Your task to perform on an android device: all mails in gmail Image 0: 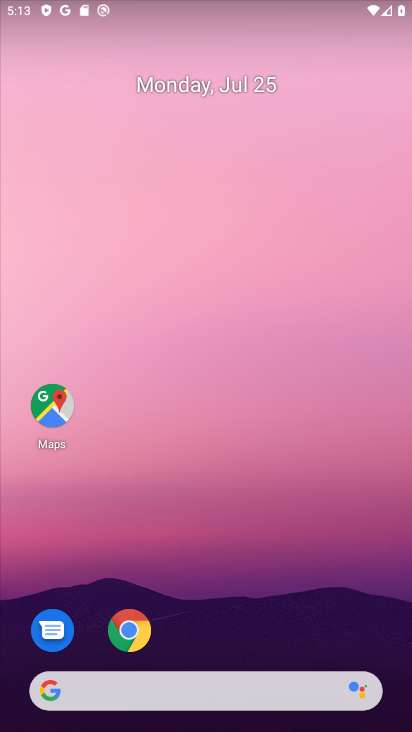
Step 0: drag from (222, 649) to (252, 2)
Your task to perform on an android device: all mails in gmail Image 1: 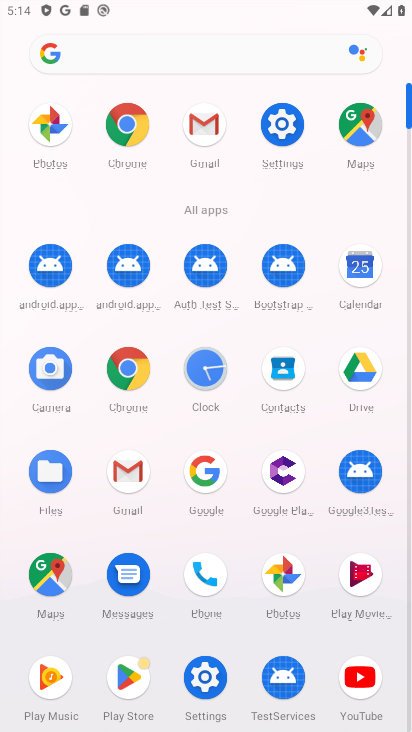
Step 1: click (204, 117)
Your task to perform on an android device: all mails in gmail Image 2: 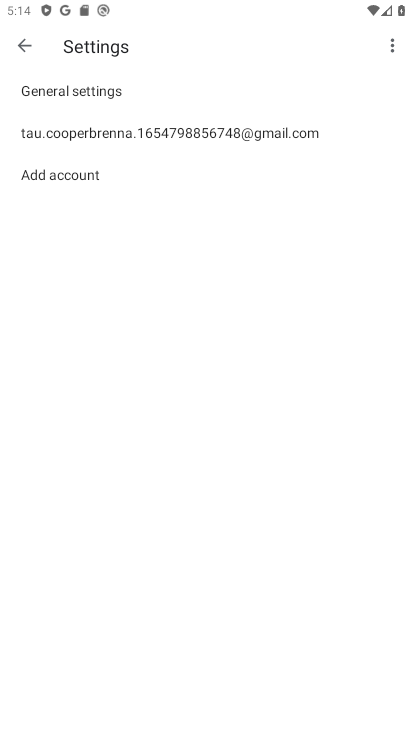
Step 2: click (23, 47)
Your task to perform on an android device: all mails in gmail Image 3: 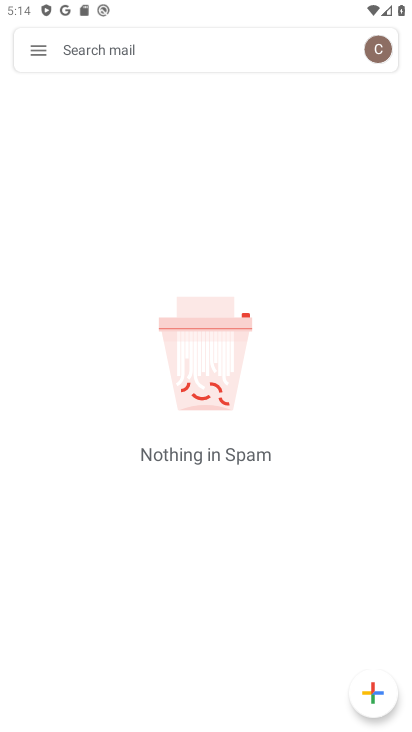
Step 3: click (28, 52)
Your task to perform on an android device: all mails in gmail Image 4: 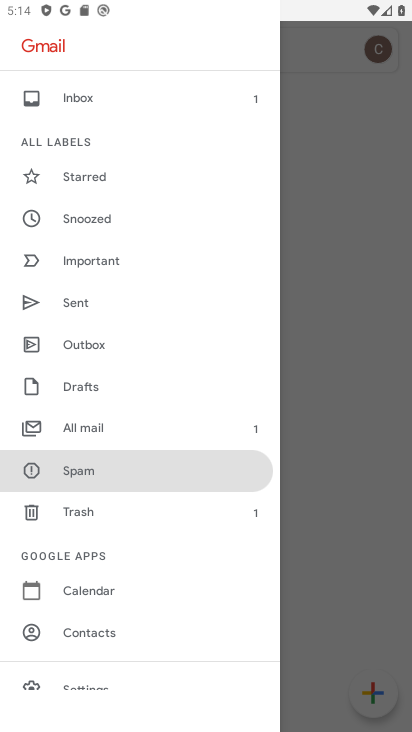
Step 4: click (105, 427)
Your task to perform on an android device: all mails in gmail Image 5: 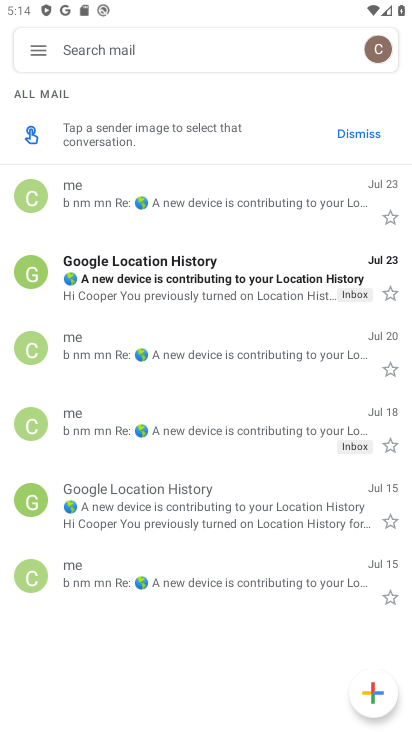
Step 5: task complete